Your task to perform on an android device: Turn off the flashlight Image 0: 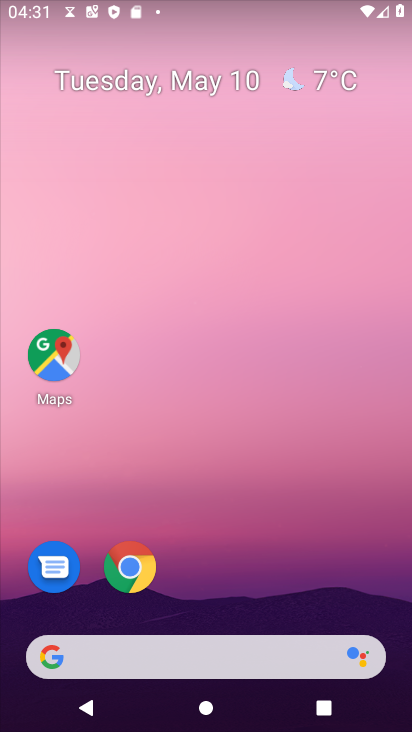
Step 0: drag from (261, 578) to (186, 60)
Your task to perform on an android device: Turn off the flashlight Image 1: 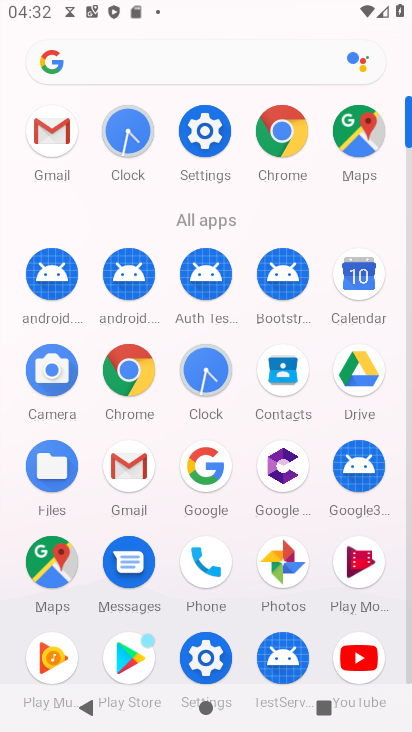
Step 1: click (206, 653)
Your task to perform on an android device: Turn off the flashlight Image 2: 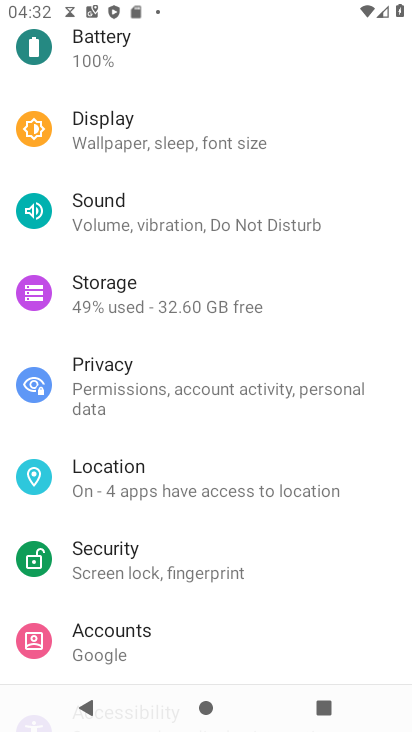
Step 2: drag from (153, 185) to (169, 393)
Your task to perform on an android device: Turn off the flashlight Image 3: 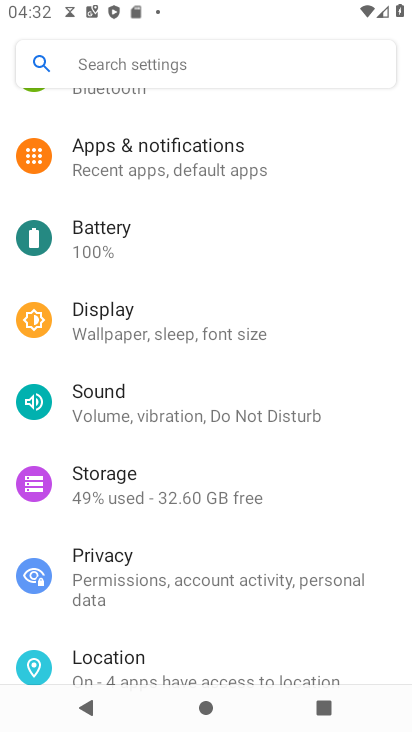
Step 3: click (173, 326)
Your task to perform on an android device: Turn off the flashlight Image 4: 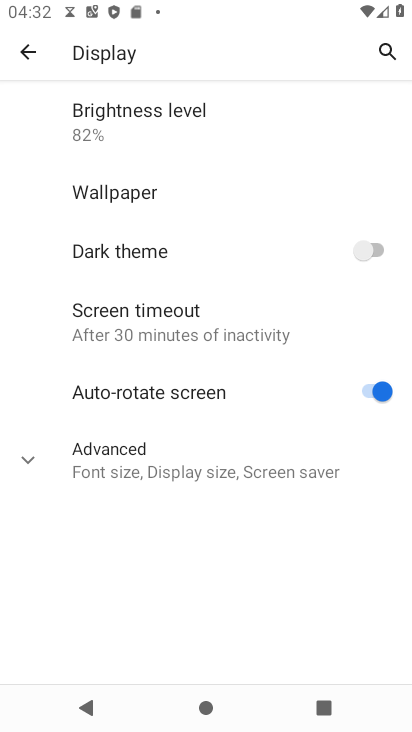
Step 4: click (186, 327)
Your task to perform on an android device: Turn off the flashlight Image 5: 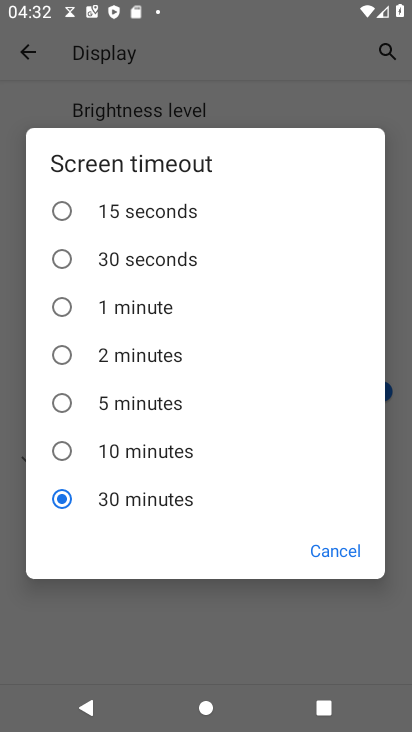
Step 5: click (105, 268)
Your task to perform on an android device: Turn off the flashlight Image 6: 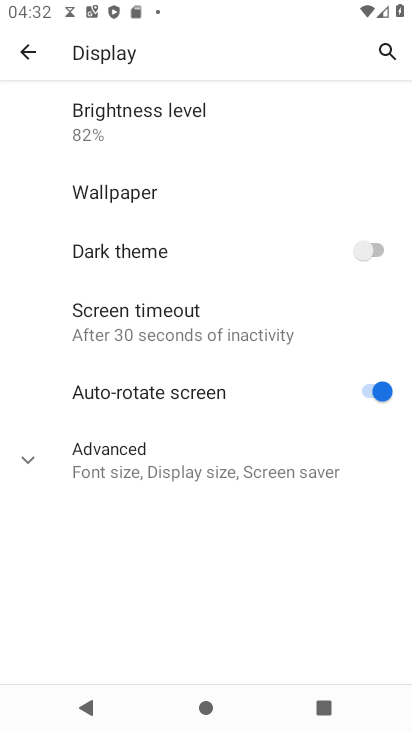
Step 6: press back button
Your task to perform on an android device: Turn off the flashlight Image 7: 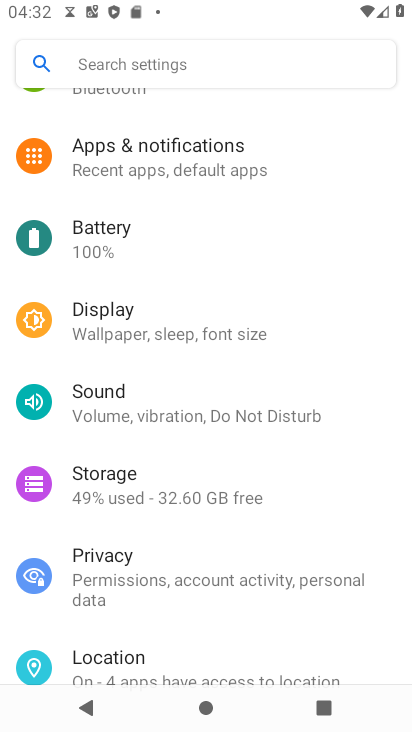
Step 7: drag from (182, 568) to (189, 432)
Your task to perform on an android device: Turn off the flashlight Image 8: 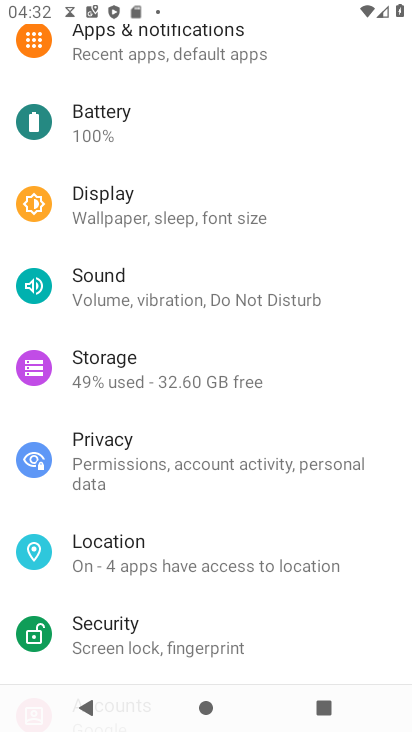
Step 8: drag from (195, 617) to (216, 450)
Your task to perform on an android device: Turn off the flashlight Image 9: 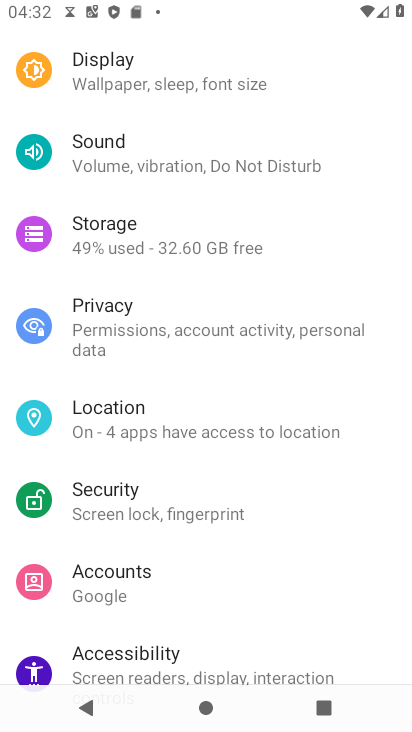
Step 9: drag from (172, 571) to (222, 421)
Your task to perform on an android device: Turn off the flashlight Image 10: 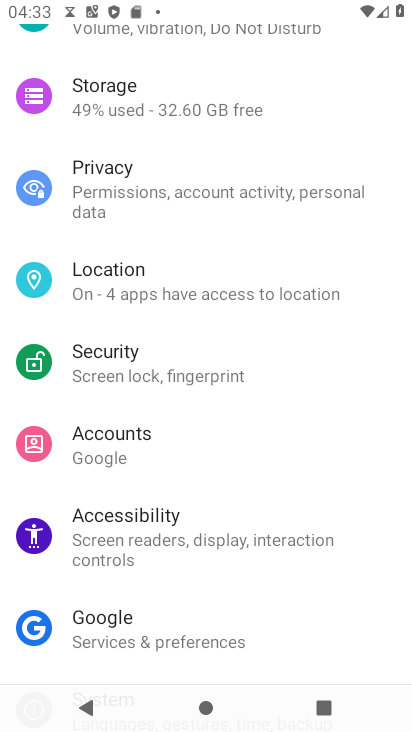
Step 10: click (134, 527)
Your task to perform on an android device: Turn off the flashlight Image 11: 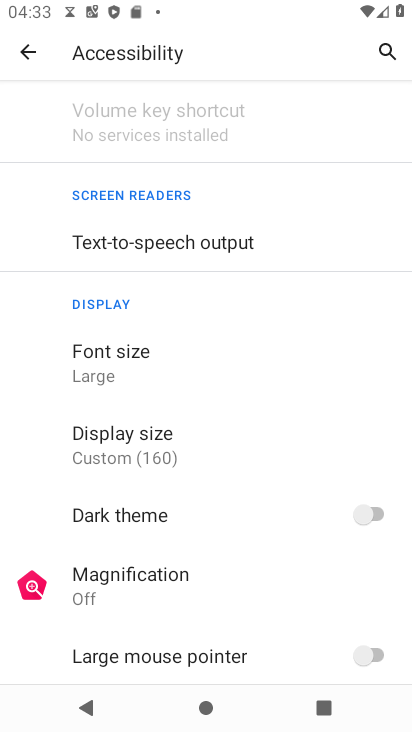
Step 11: drag from (94, 559) to (174, 422)
Your task to perform on an android device: Turn off the flashlight Image 12: 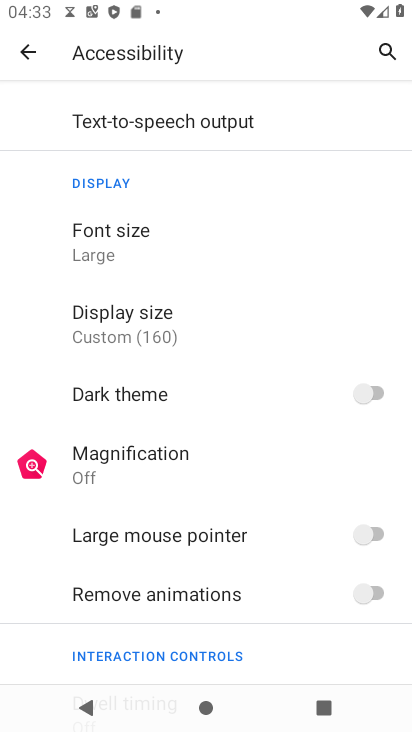
Step 12: drag from (161, 568) to (207, 394)
Your task to perform on an android device: Turn off the flashlight Image 13: 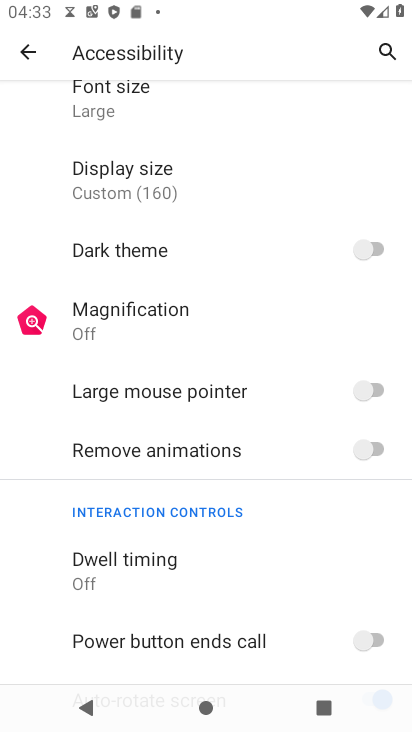
Step 13: drag from (154, 565) to (239, 371)
Your task to perform on an android device: Turn off the flashlight Image 14: 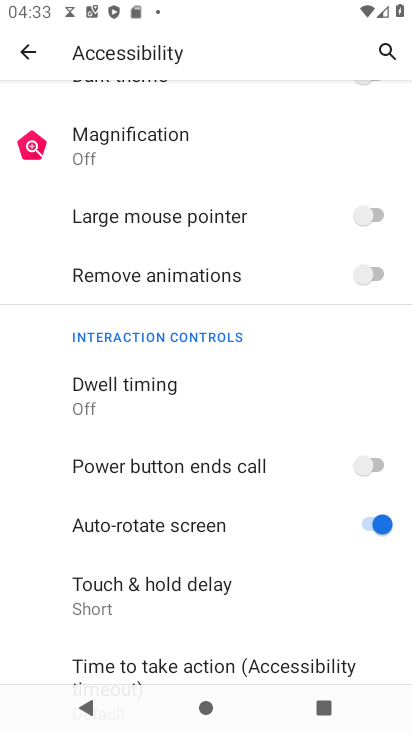
Step 14: drag from (157, 591) to (225, 381)
Your task to perform on an android device: Turn off the flashlight Image 15: 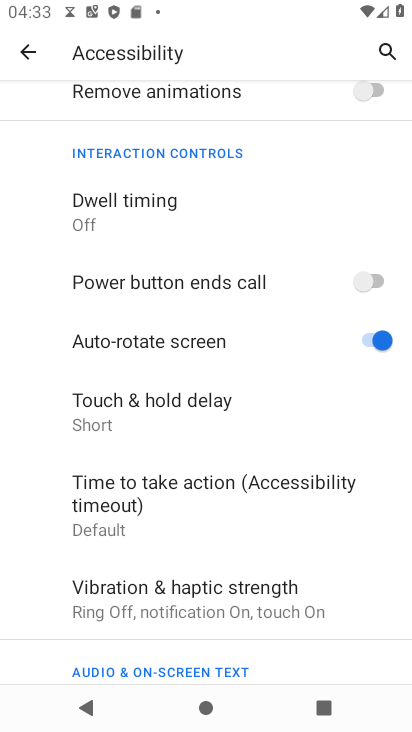
Step 15: drag from (169, 563) to (191, 377)
Your task to perform on an android device: Turn off the flashlight Image 16: 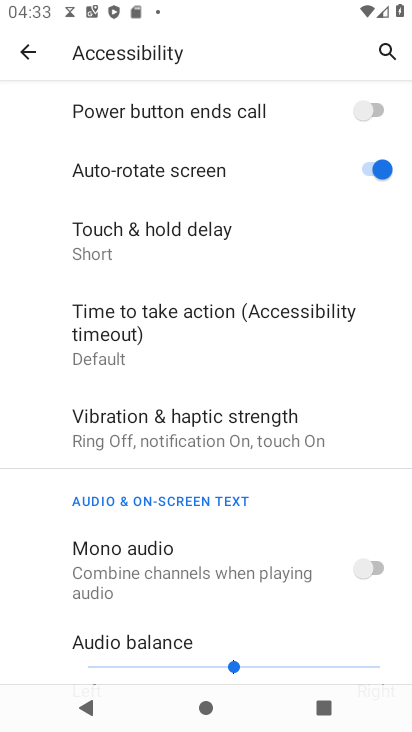
Step 16: drag from (160, 571) to (197, 361)
Your task to perform on an android device: Turn off the flashlight Image 17: 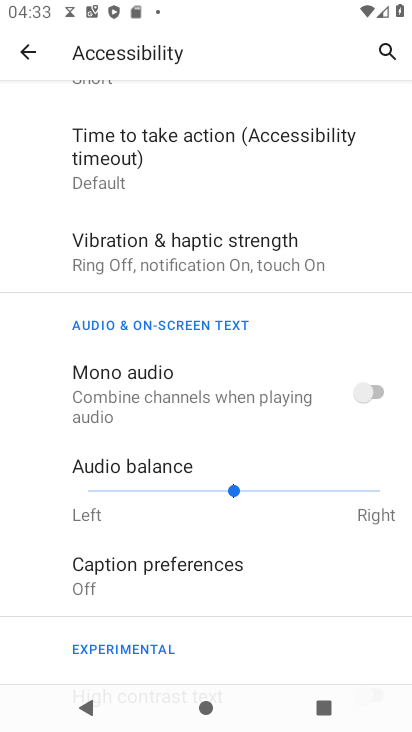
Step 17: drag from (161, 575) to (216, 357)
Your task to perform on an android device: Turn off the flashlight Image 18: 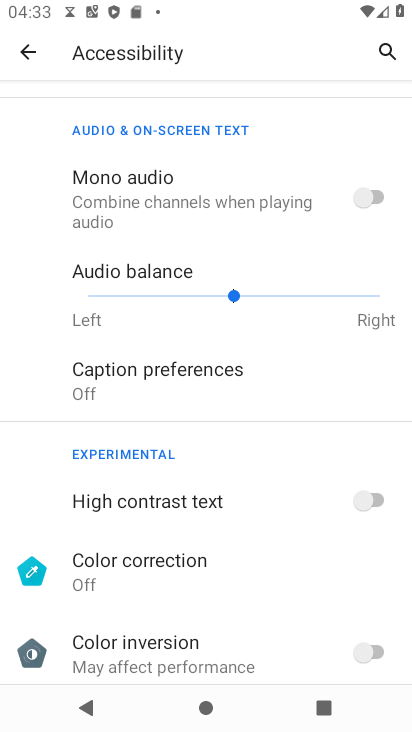
Step 18: drag from (156, 564) to (192, 348)
Your task to perform on an android device: Turn off the flashlight Image 19: 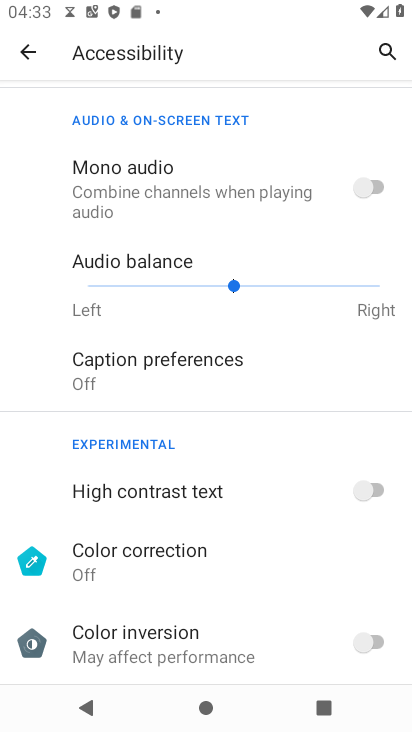
Step 19: drag from (130, 164) to (151, 336)
Your task to perform on an android device: Turn off the flashlight Image 20: 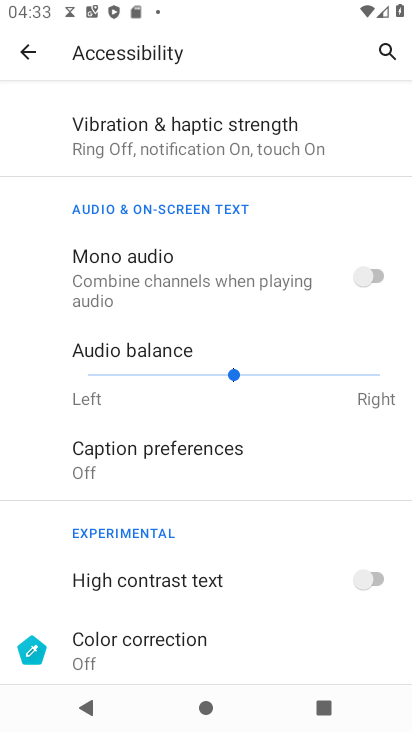
Step 20: click (382, 55)
Your task to perform on an android device: Turn off the flashlight Image 21: 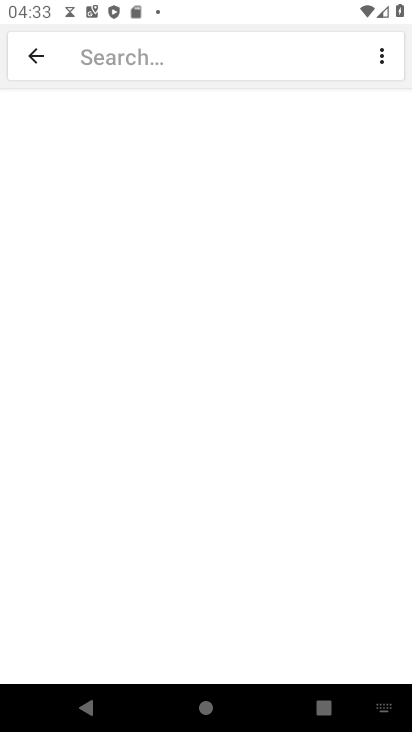
Step 21: click (273, 48)
Your task to perform on an android device: Turn off the flashlight Image 22: 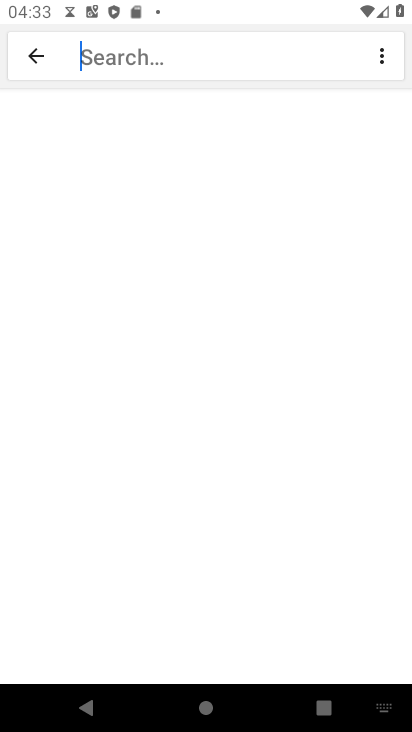
Step 22: click (148, 64)
Your task to perform on an android device: Turn off the flashlight Image 23: 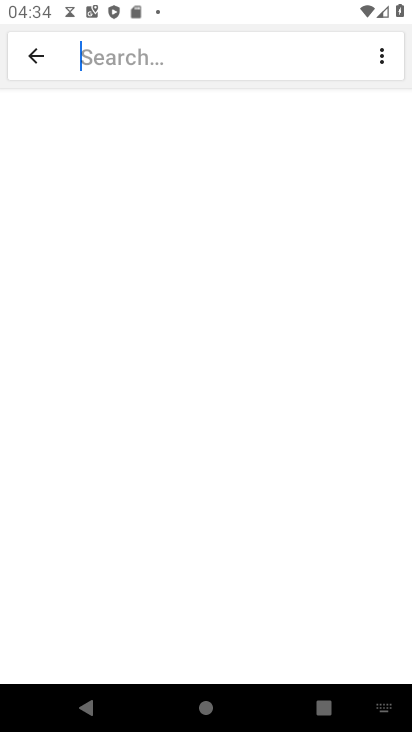
Step 23: type "flashlight"
Your task to perform on an android device: Turn off the flashlight Image 24: 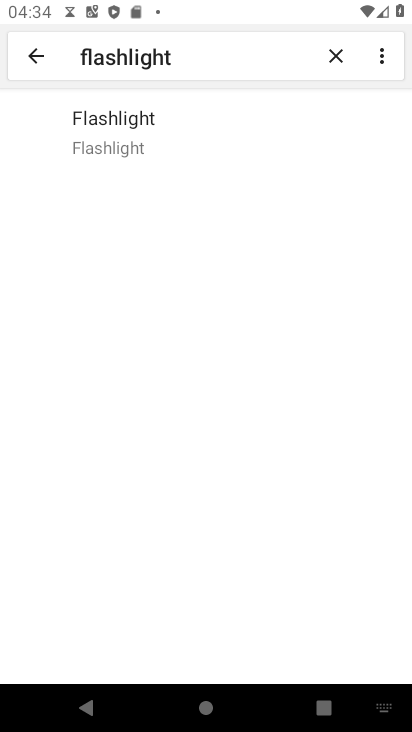
Step 24: click (137, 118)
Your task to perform on an android device: Turn off the flashlight Image 25: 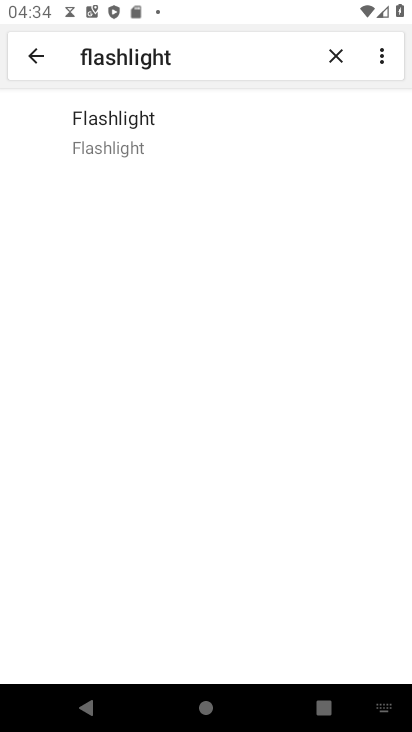
Step 25: task complete